Your task to perform on an android device: check the backup settings in the google photos Image 0: 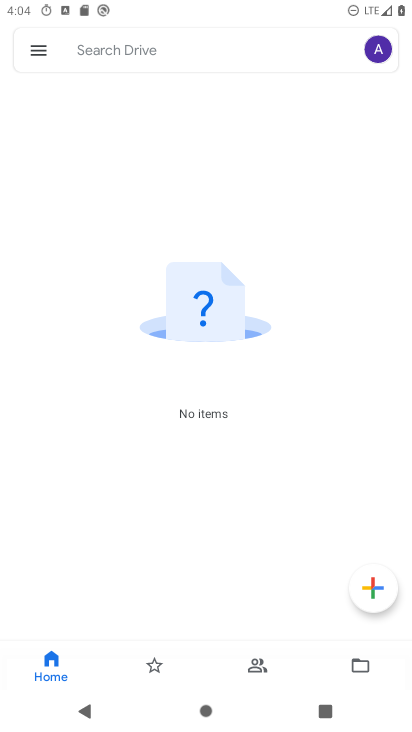
Step 0: click (44, 54)
Your task to perform on an android device: check the backup settings in the google photos Image 1: 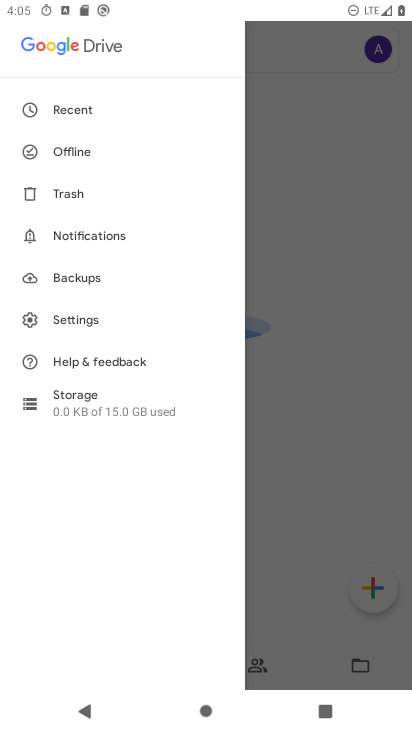
Step 1: click (79, 318)
Your task to perform on an android device: check the backup settings in the google photos Image 2: 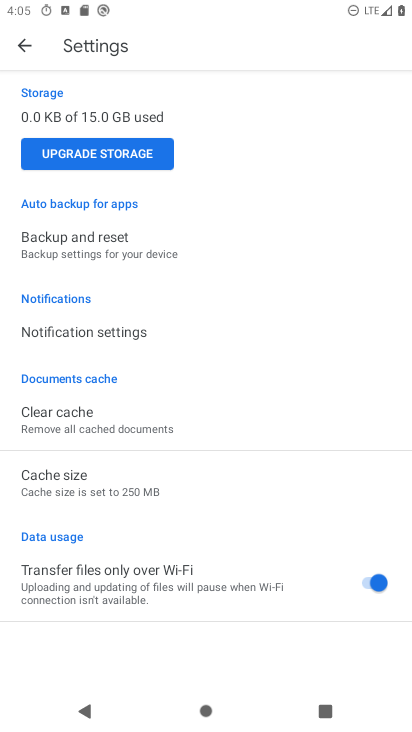
Step 2: click (109, 249)
Your task to perform on an android device: check the backup settings in the google photos Image 3: 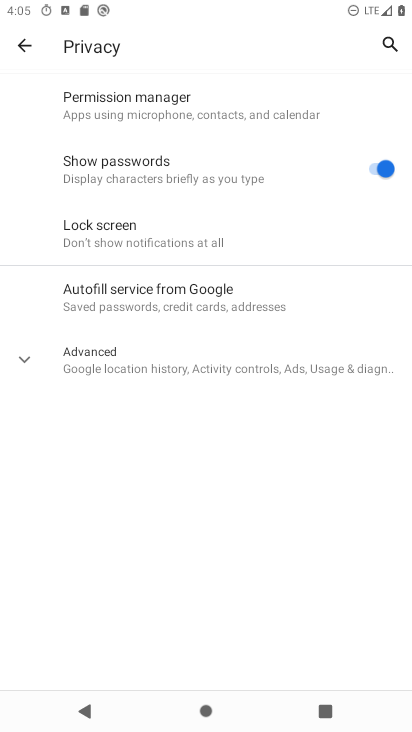
Step 3: task complete